Your task to perform on an android device: search for starred emails in the gmail app Image 0: 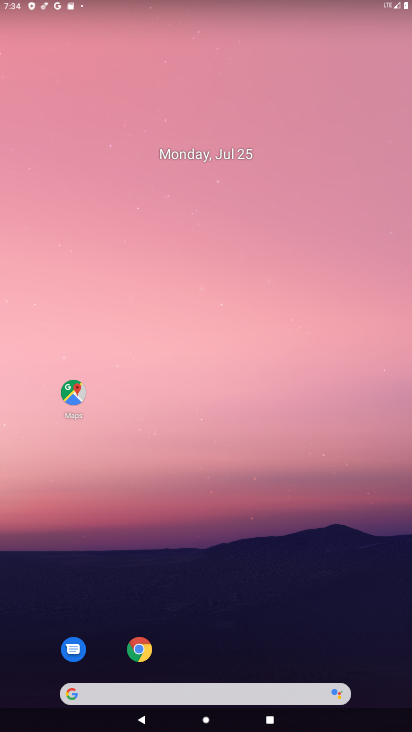
Step 0: drag from (203, 663) to (247, 17)
Your task to perform on an android device: search for starred emails in the gmail app Image 1: 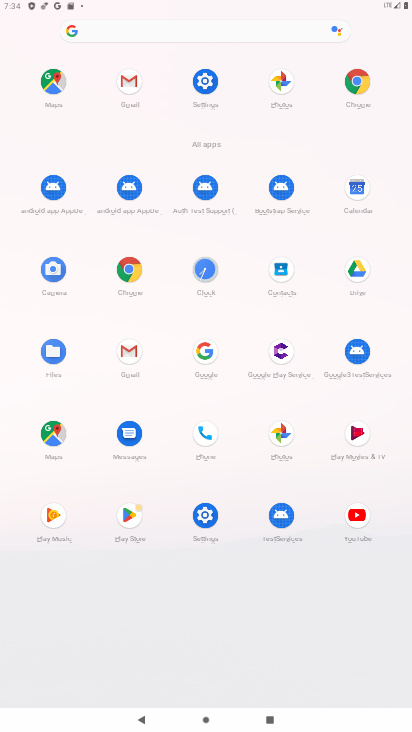
Step 1: click (135, 354)
Your task to perform on an android device: search for starred emails in the gmail app Image 2: 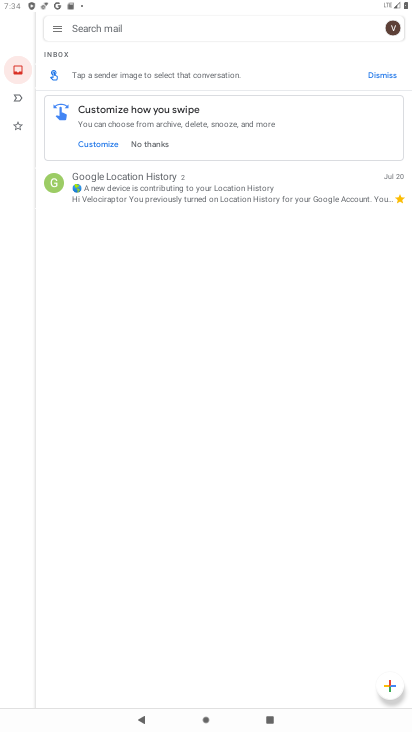
Step 2: click (55, 30)
Your task to perform on an android device: search for starred emails in the gmail app Image 3: 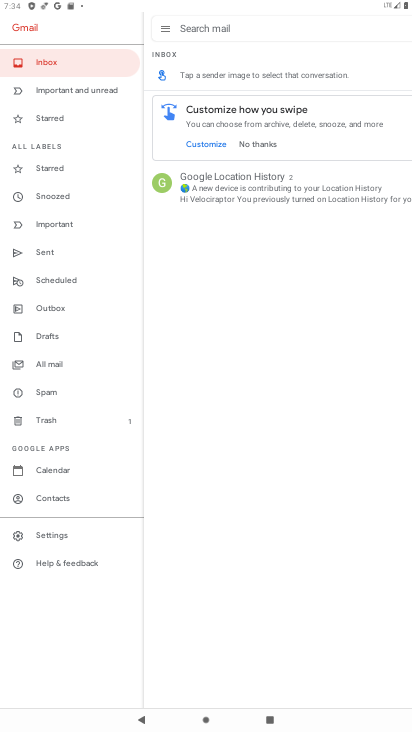
Step 3: click (34, 172)
Your task to perform on an android device: search for starred emails in the gmail app Image 4: 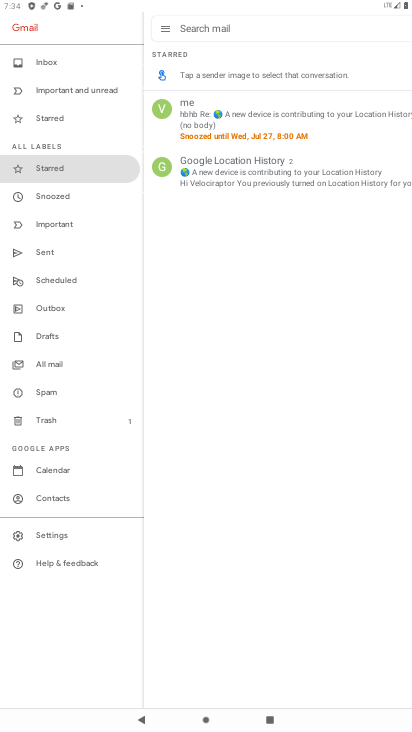
Step 4: task complete